Your task to perform on an android device: turn notification dots off Image 0: 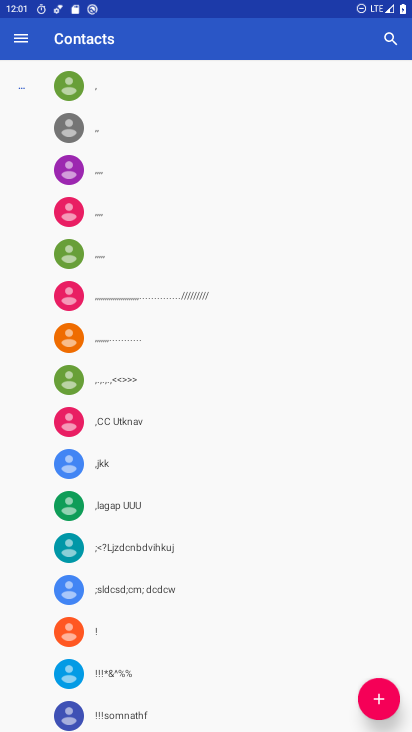
Step 0: press home button
Your task to perform on an android device: turn notification dots off Image 1: 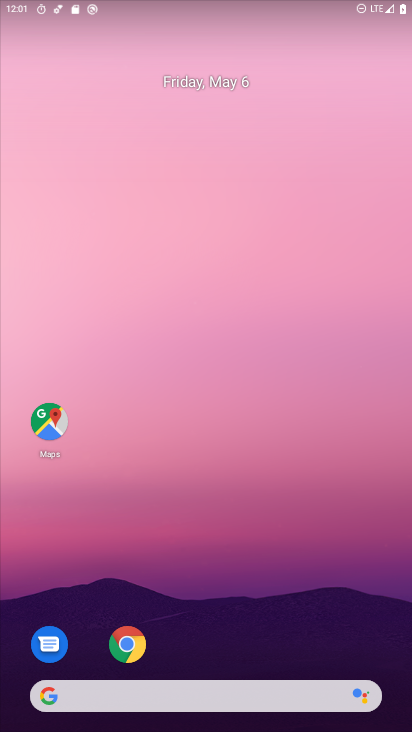
Step 1: drag from (328, 619) to (333, 128)
Your task to perform on an android device: turn notification dots off Image 2: 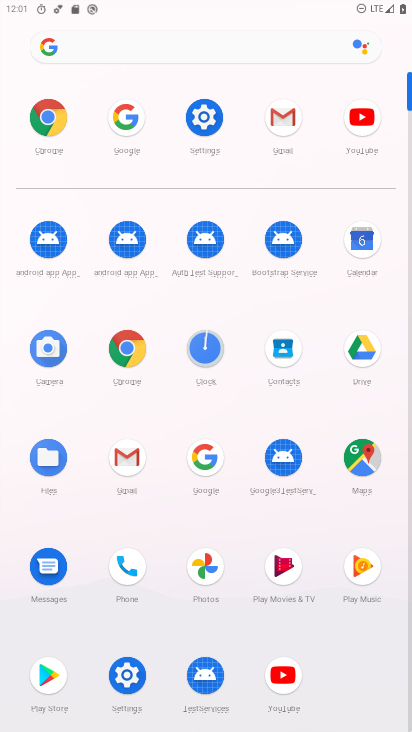
Step 2: click (206, 86)
Your task to perform on an android device: turn notification dots off Image 3: 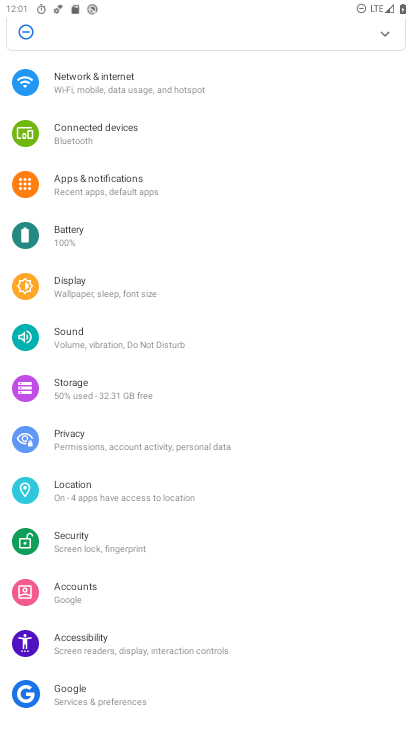
Step 3: click (151, 176)
Your task to perform on an android device: turn notification dots off Image 4: 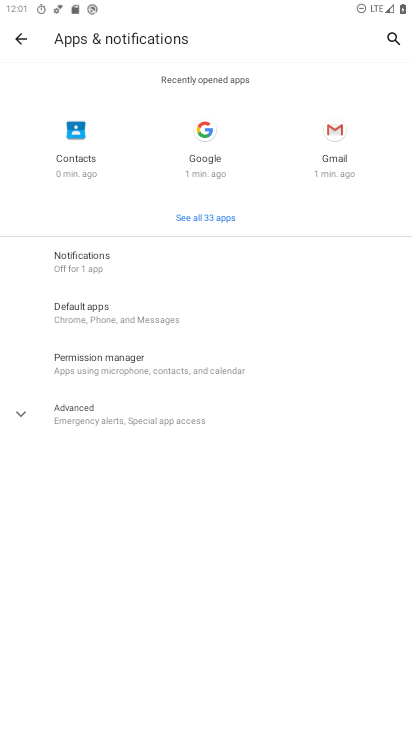
Step 4: click (95, 259)
Your task to perform on an android device: turn notification dots off Image 5: 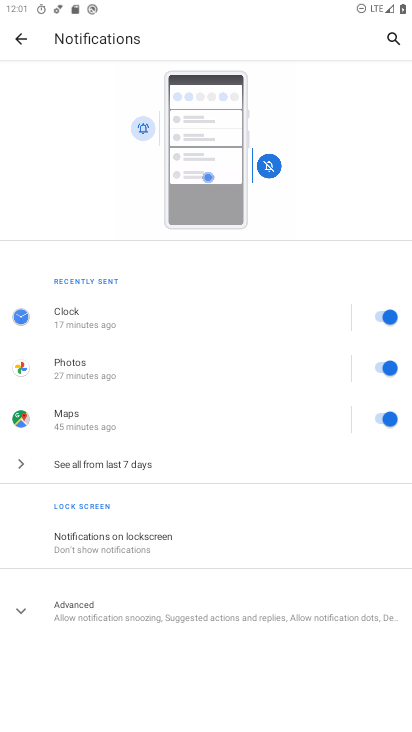
Step 5: click (168, 603)
Your task to perform on an android device: turn notification dots off Image 6: 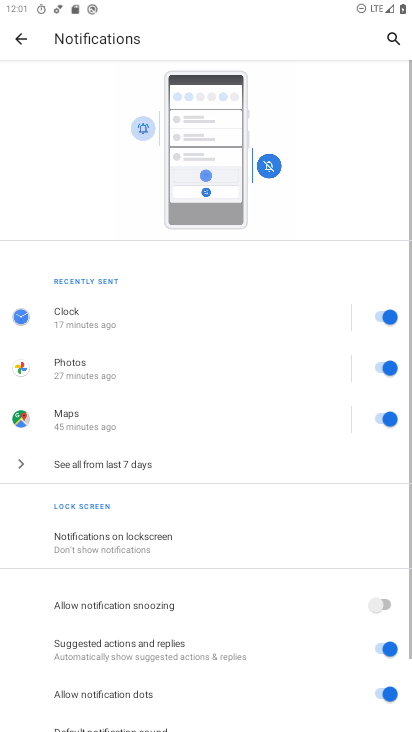
Step 6: drag from (307, 656) to (272, 411)
Your task to perform on an android device: turn notification dots off Image 7: 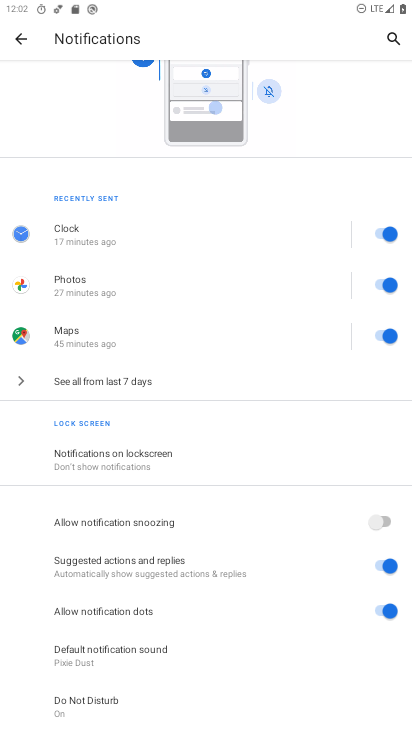
Step 7: click (382, 613)
Your task to perform on an android device: turn notification dots off Image 8: 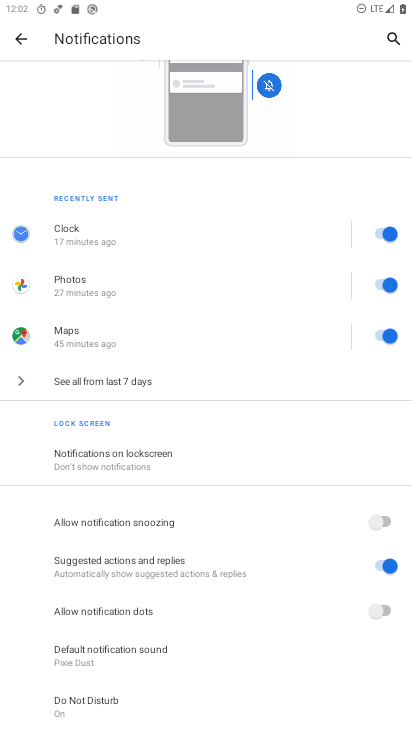
Step 8: task complete